Your task to perform on an android device: turn on the 24-hour format for clock Image 0: 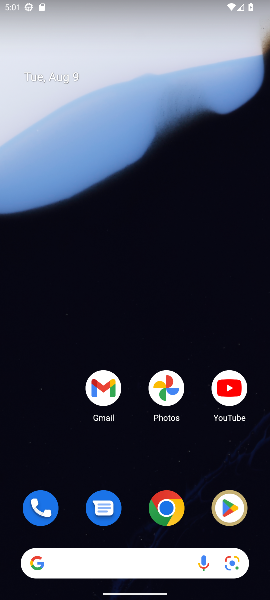
Step 0: drag from (159, 453) to (110, 16)
Your task to perform on an android device: turn on the 24-hour format for clock Image 1: 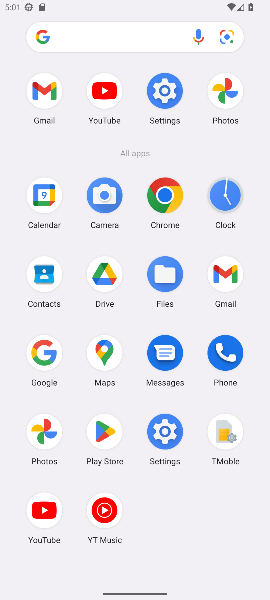
Step 1: click (219, 197)
Your task to perform on an android device: turn on the 24-hour format for clock Image 2: 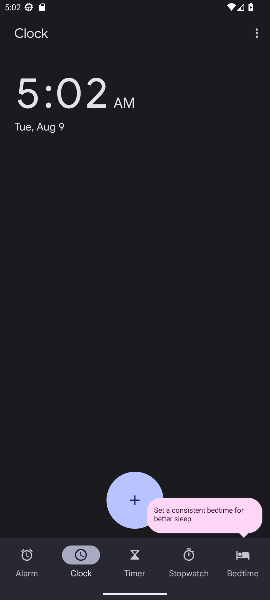
Step 2: click (259, 31)
Your task to perform on an android device: turn on the 24-hour format for clock Image 3: 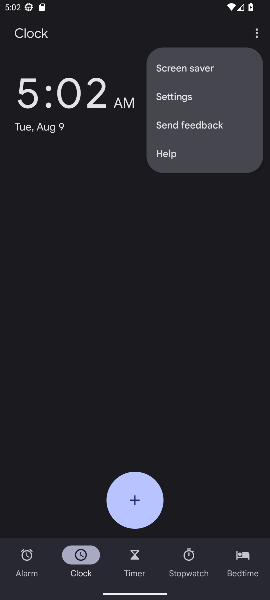
Step 3: click (197, 94)
Your task to perform on an android device: turn on the 24-hour format for clock Image 4: 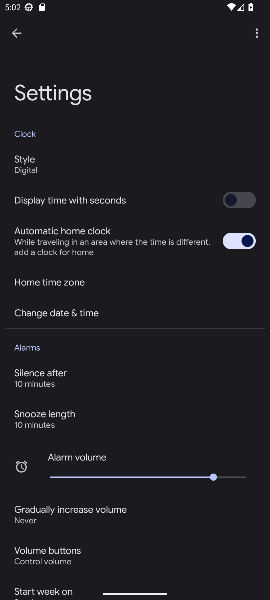
Step 4: click (87, 311)
Your task to perform on an android device: turn on the 24-hour format for clock Image 5: 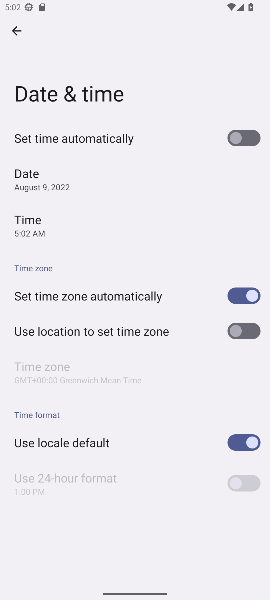
Step 5: click (223, 442)
Your task to perform on an android device: turn on the 24-hour format for clock Image 6: 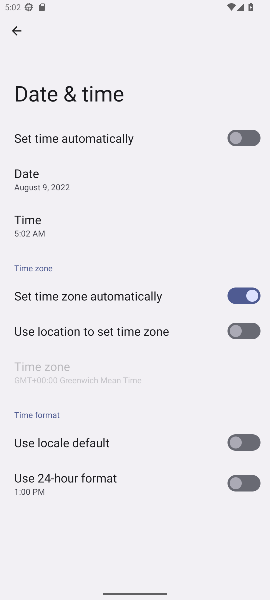
Step 6: click (239, 480)
Your task to perform on an android device: turn on the 24-hour format for clock Image 7: 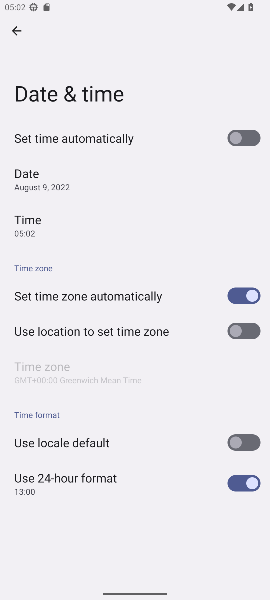
Step 7: task complete